Your task to perform on an android device: Search for rayovac triple a on target, select the first entry, and add it to the cart. Image 0: 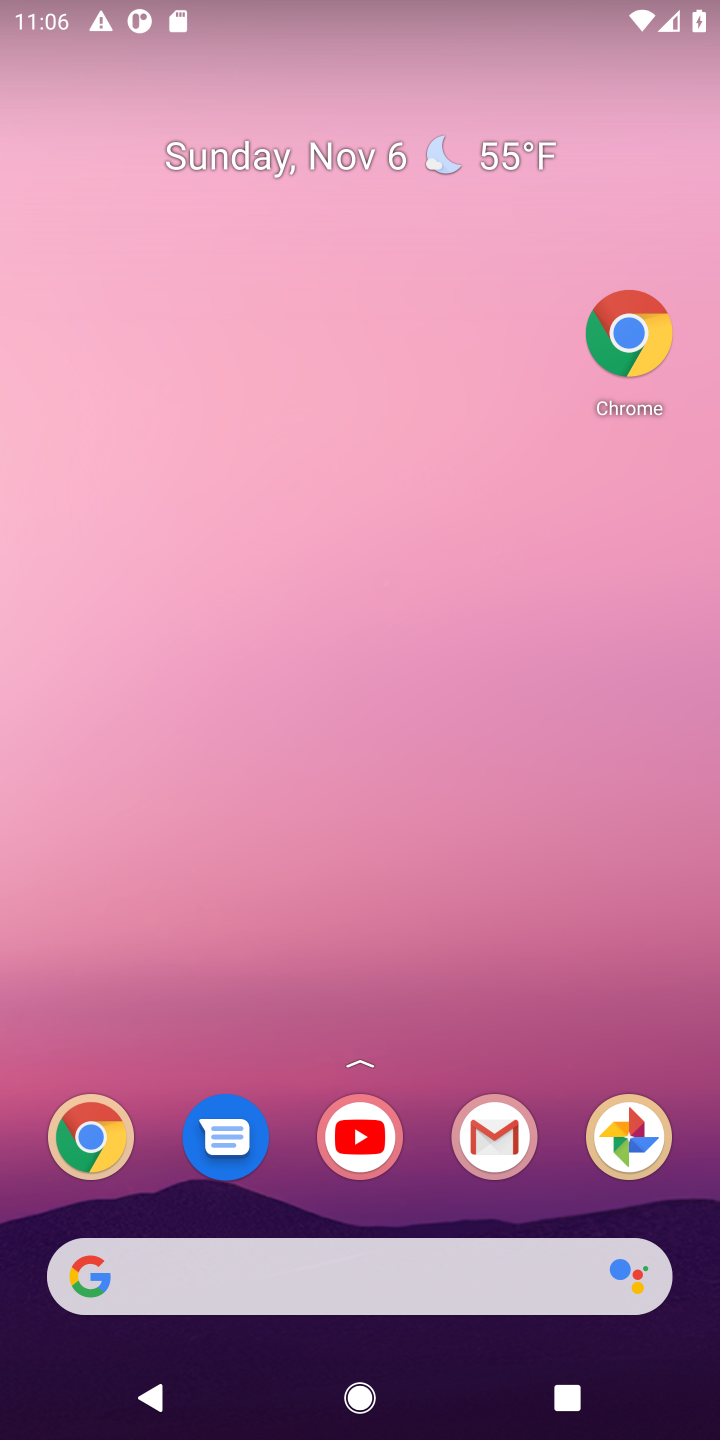
Step 0: drag from (421, 1199) to (405, 315)
Your task to perform on an android device: Search for rayovac triple a on target, select the first entry, and add it to the cart. Image 1: 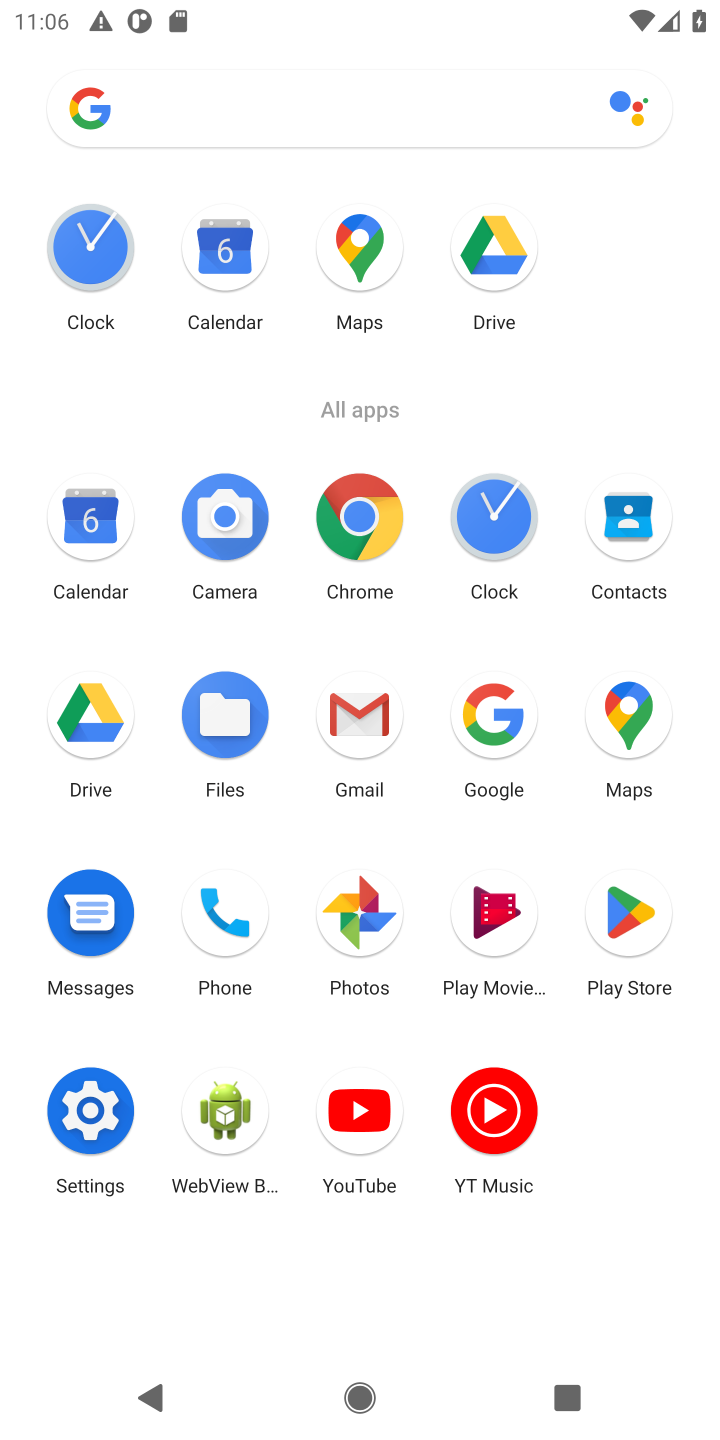
Step 1: click (374, 530)
Your task to perform on an android device: Search for rayovac triple a on target, select the first entry, and add it to the cart. Image 2: 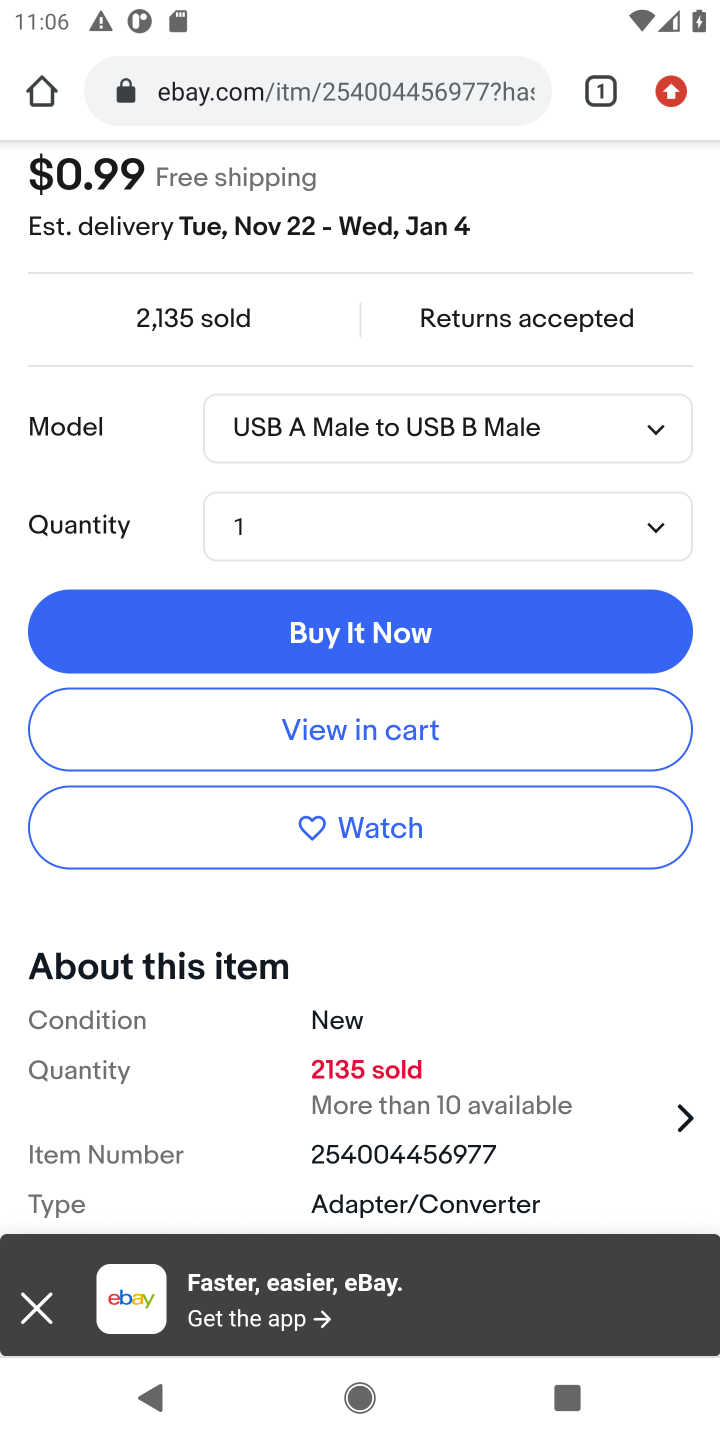
Step 2: click (477, 84)
Your task to perform on an android device: Search for rayovac triple a on target, select the first entry, and add it to the cart. Image 3: 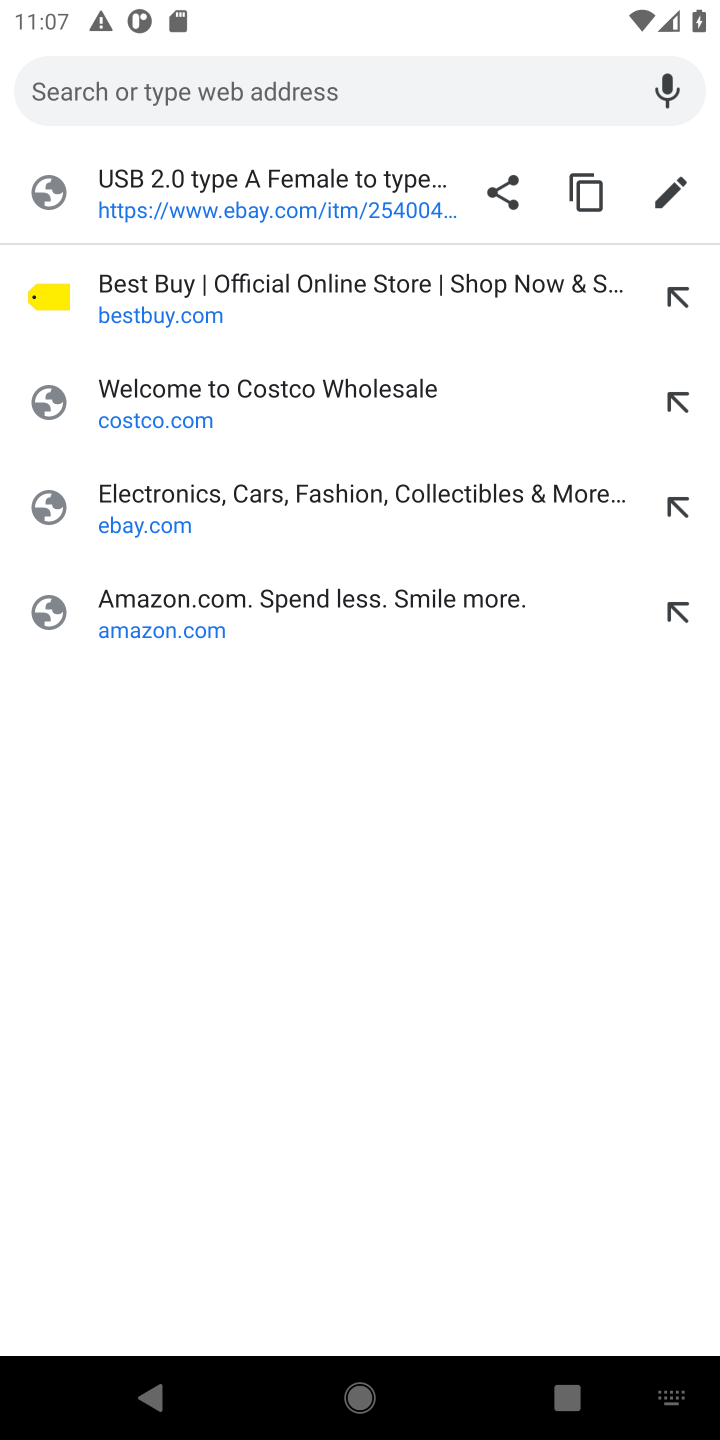
Step 3: type "target.com"
Your task to perform on an android device: Search for rayovac triple a on target, select the first entry, and add it to the cart. Image 4: 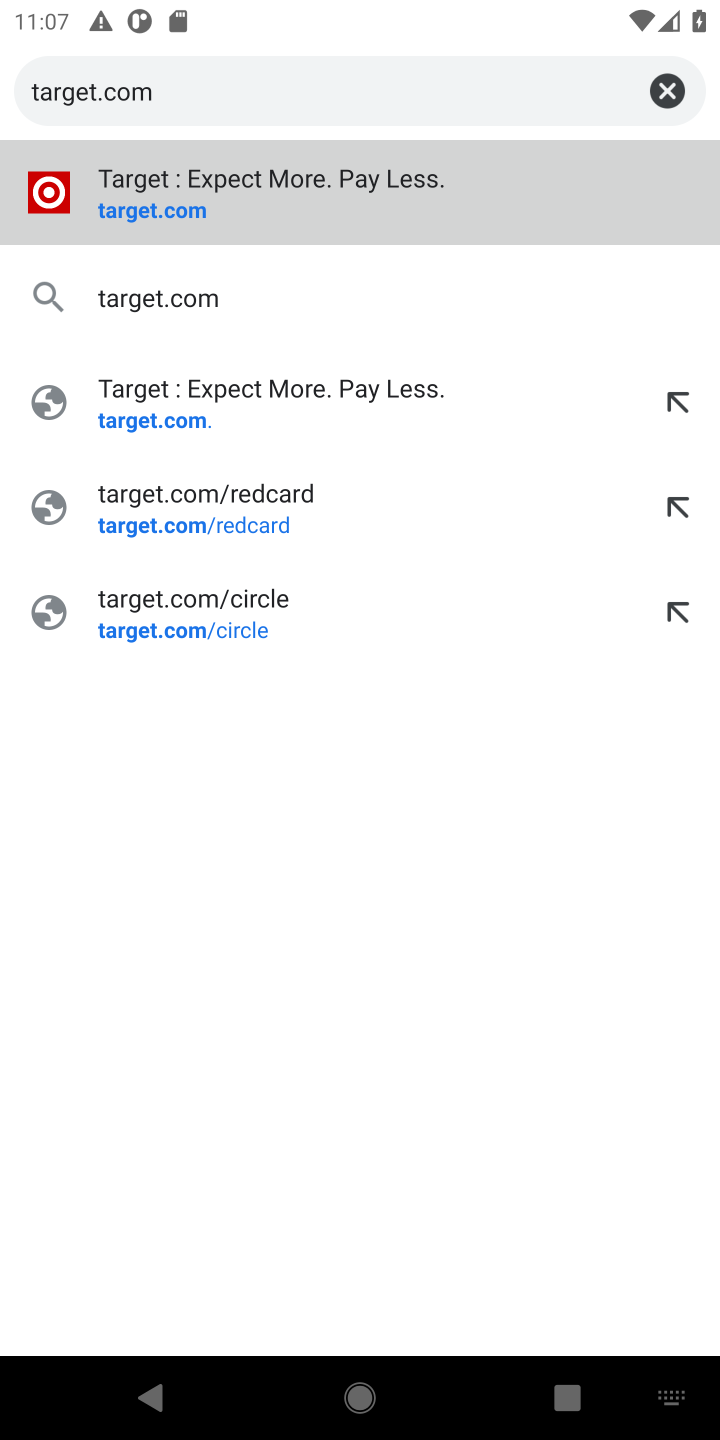
Step 4: press enter
Your task to perform on an android device: Search for rayovac triple a on target, select the first entry, and add it to the cart. Image 5: 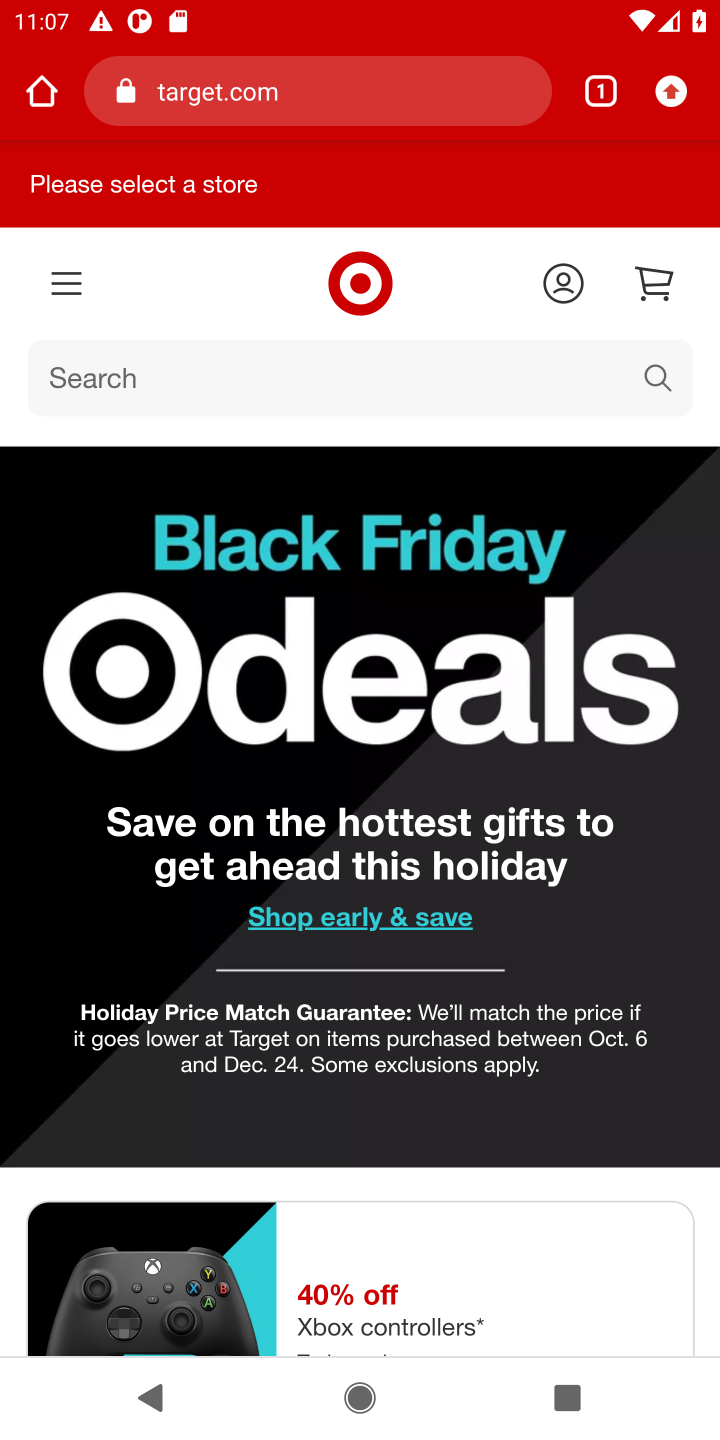
Step 5: click (463, 376)
Your task to perform on an android device: Search for rayovac triple a on target, select the first entry, and add it to the cart. Image 6: 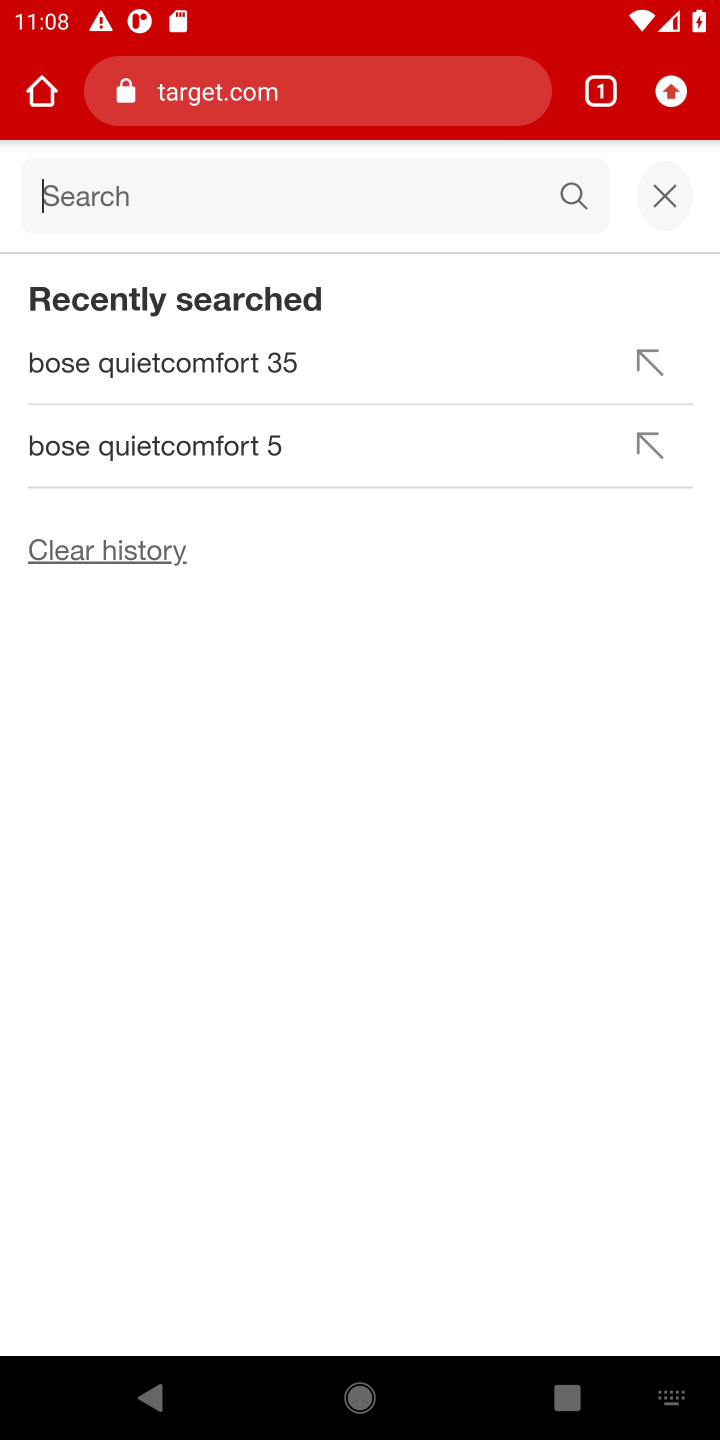
Step 6: type "rayovac triple a"
Your task to perform on an android device: Search for rayovac triple a on target, select the first entry, and add it to the cart. Image 7: 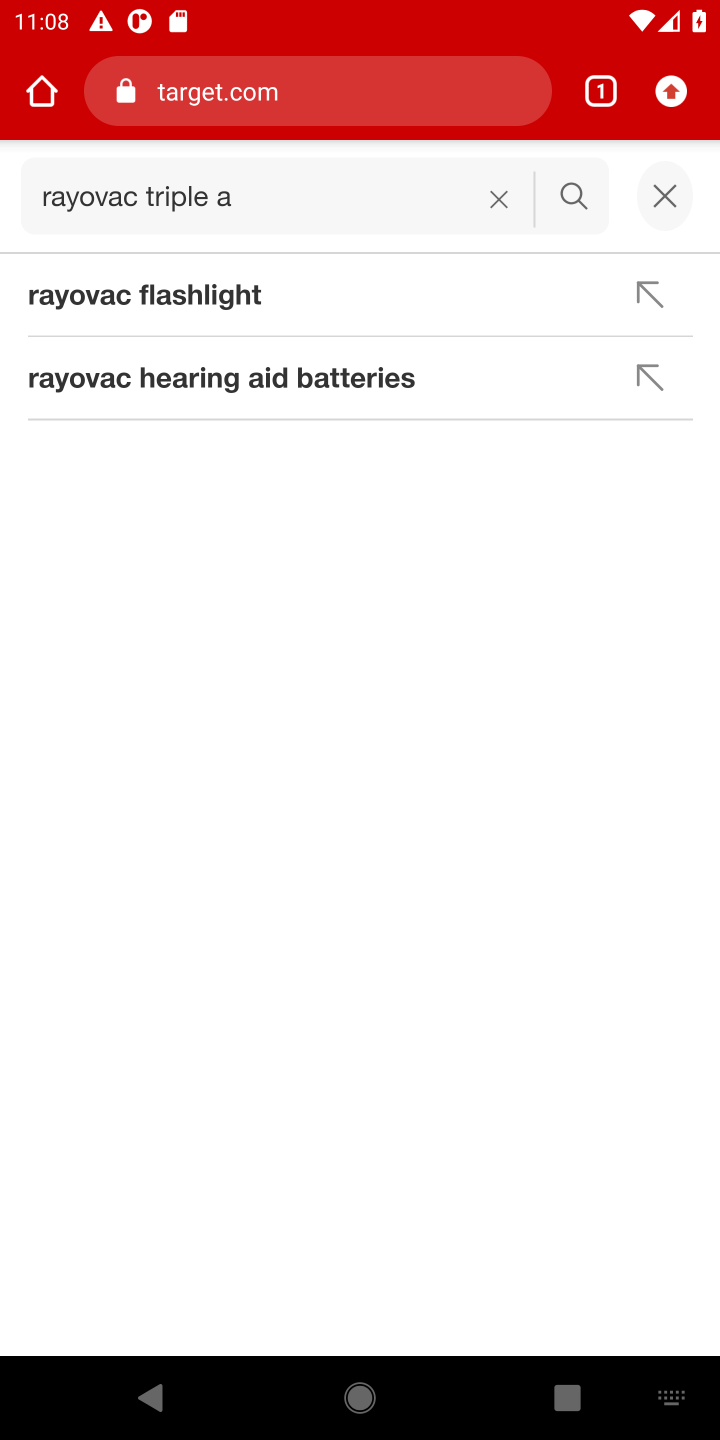
Step 7: press enter
Your task to perform on an android device: Search for rayovac triple a on target, select the first entry, and add it to the cart. Image 8: 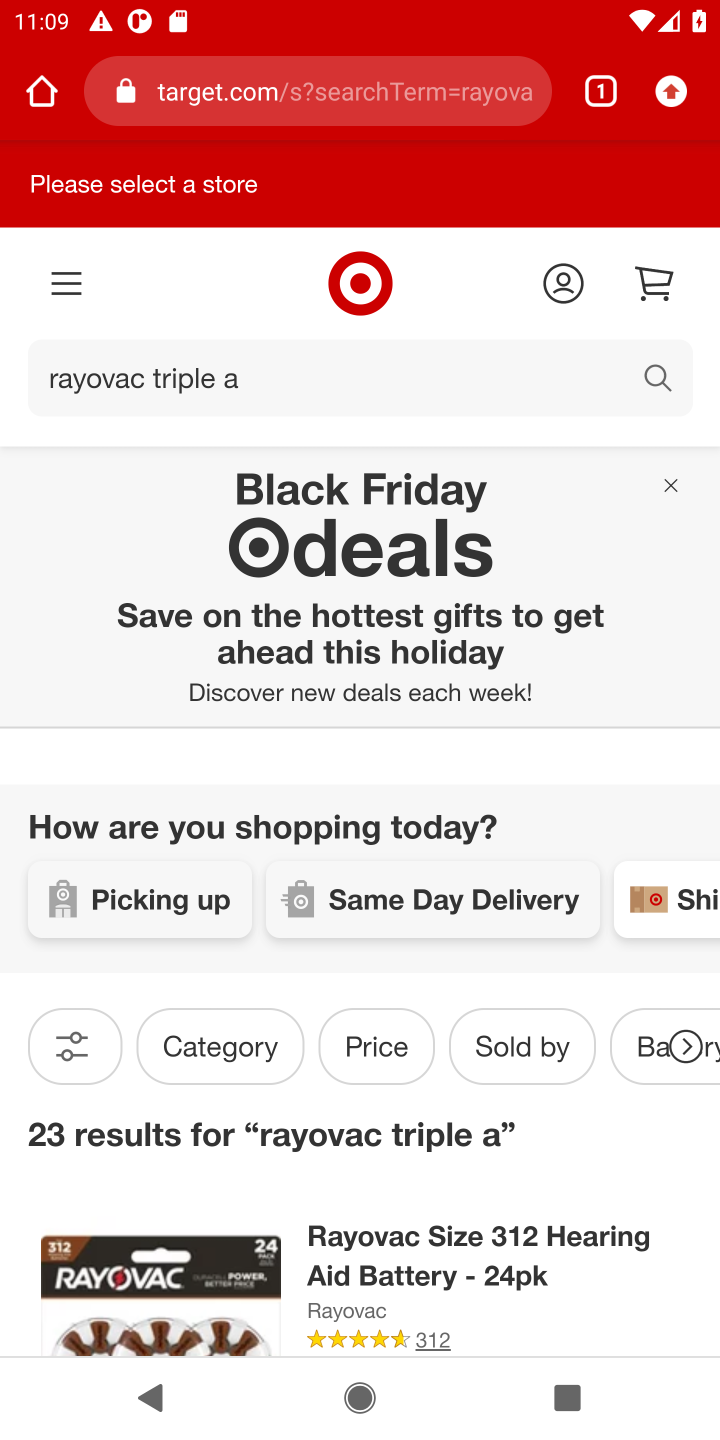
Step 8: task complete